Your task to perform on an android device: Open Amazon Image 0: 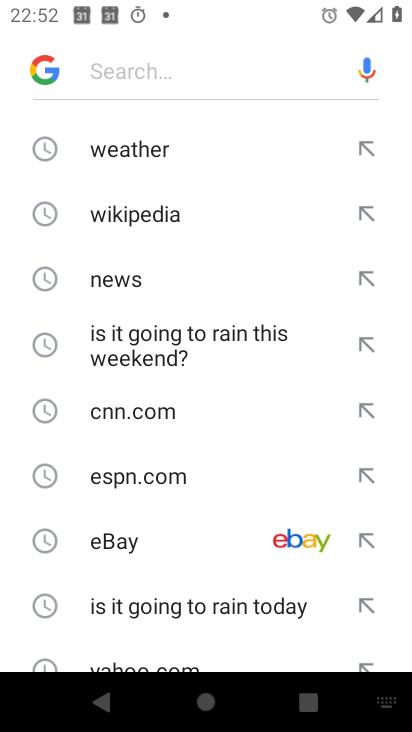
Step 0: press home button
Your task to perform on an android device: Open Amazon Image 1: 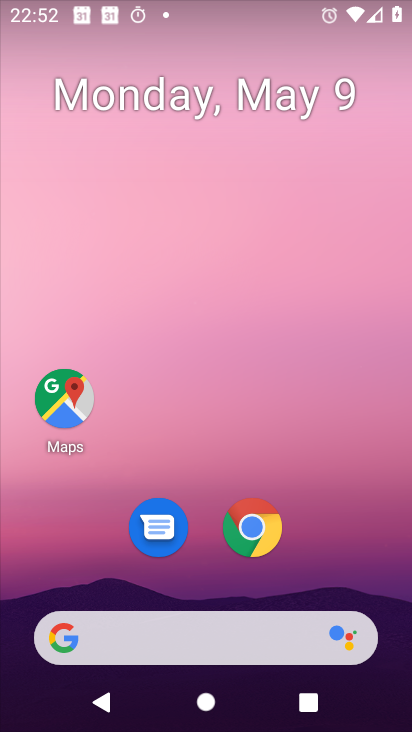
Step 1: click (251, 532)
Your task to perform on an android device: Open Amazon Image 2: 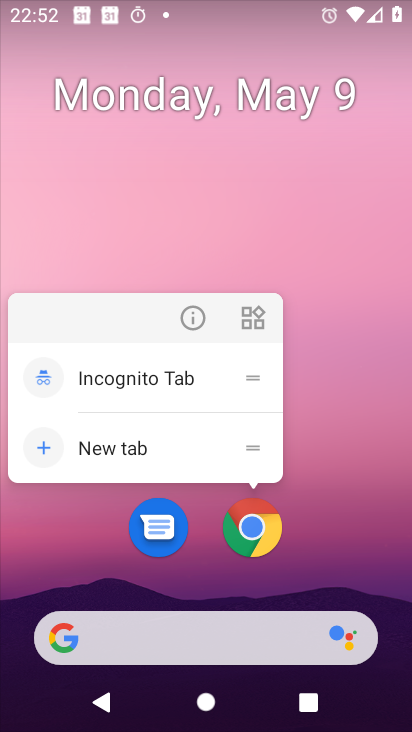
Step 2: click (251, 532)
Your task to perform on an android device: Open Amazon Image 3: 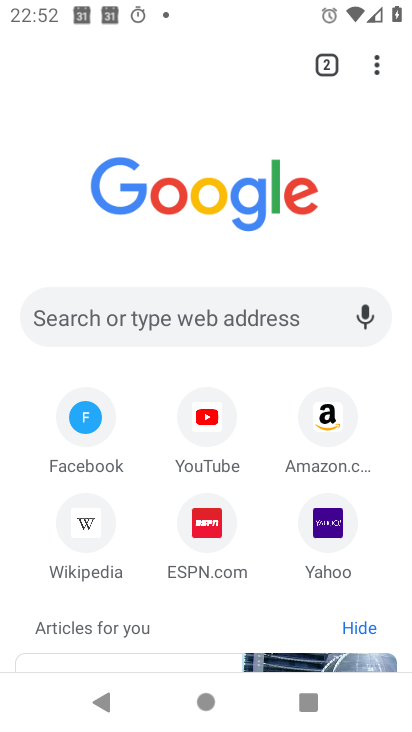
Step 3: click (325, 418)
Your task to perform on an android device: Open Amazon Image 4: 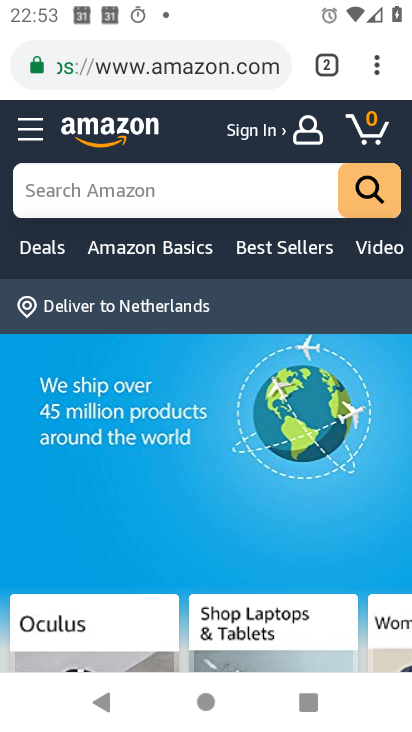
Step 4: task complete